Your task to perform on an android device: Go to Yahoo.com Image 0: 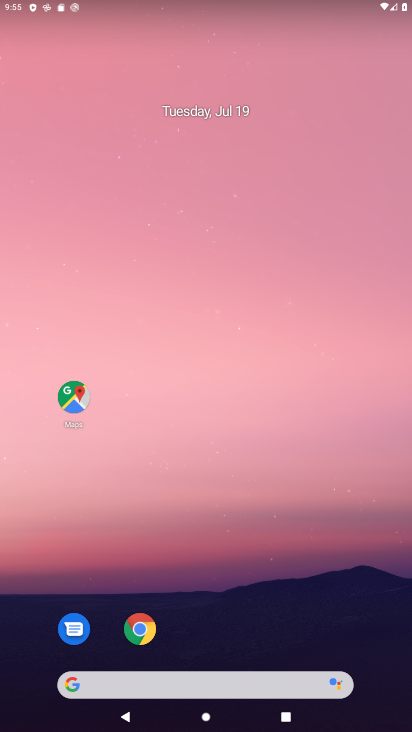
Step 0: click (71, 680)
Your task to perform on an android device: Go to Yahoo.com Image 1: 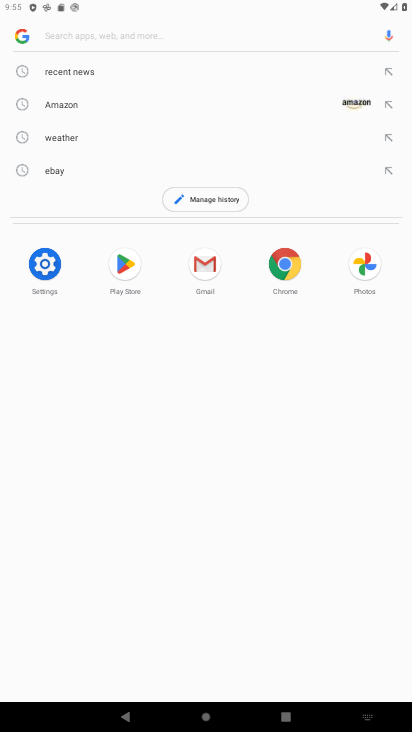
Step 1: type "Yahoo.com"
Your task to perform on an android device: Go to Yahoo.com Image 2: 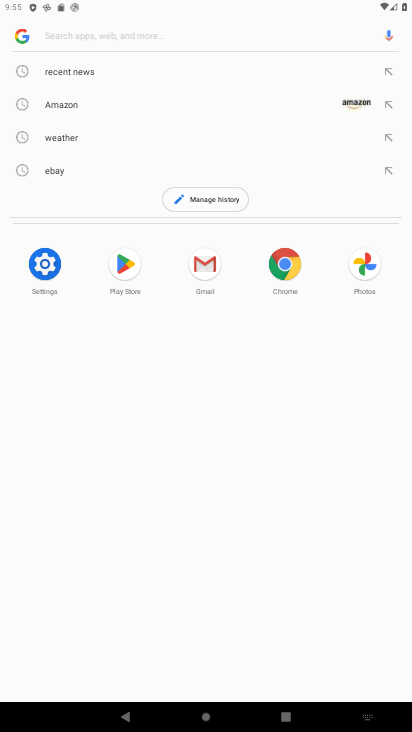
Step 2: click (80, 28)
Your task to perform on an android device: Go to Yahoo.com Image 3: 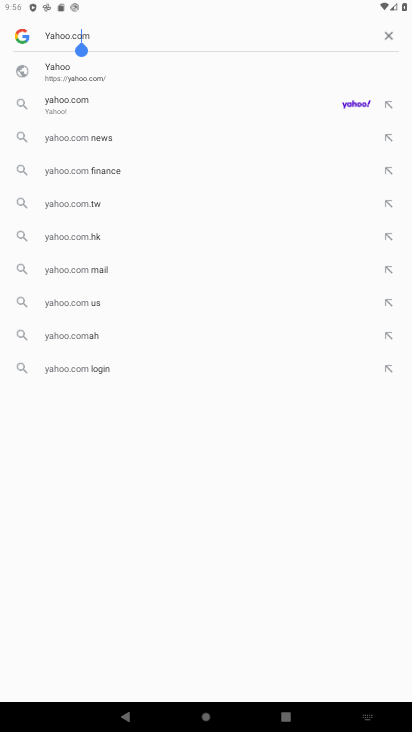
Step 3: click (349, 101)
Your task to perform on an android device: Go to Yahoo.com Image 4: 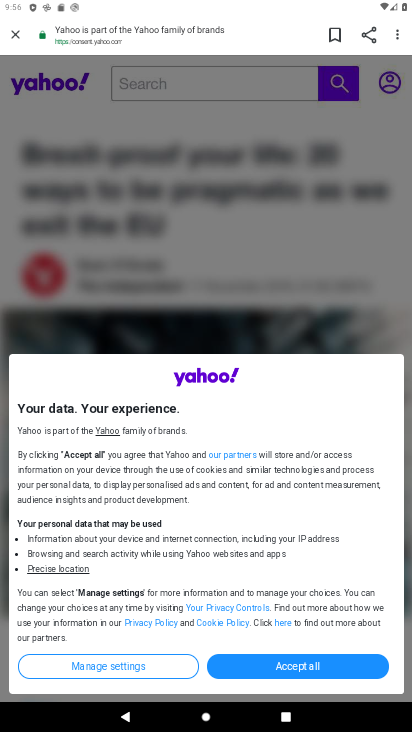
Step 4: click (283, 662)
Your task to perform on an android device: Go to Yahoo.com Image 5: 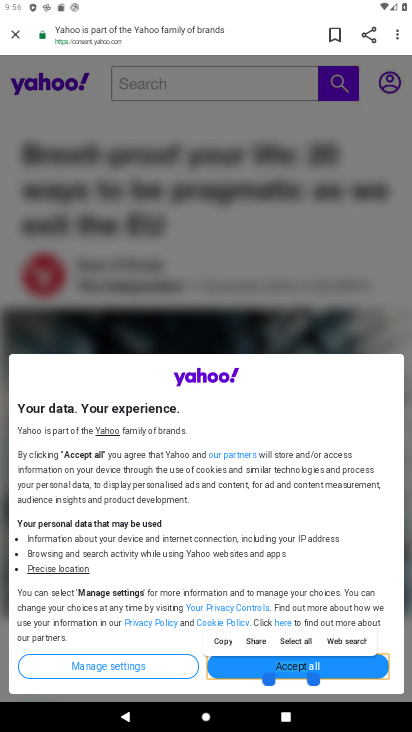
Step 5: click (319, 667)
Your task to perform on an android device: Go to Yahoo.com Image 6: 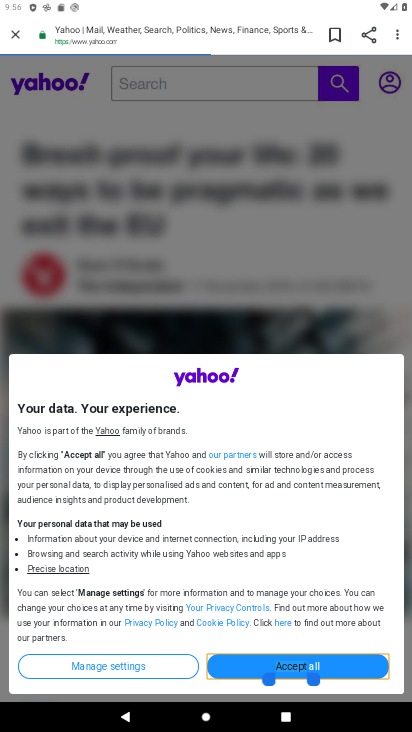
Step 6: click (289, 668)
Your task to perform on an android device: Go to Yahoo.com Image 7: 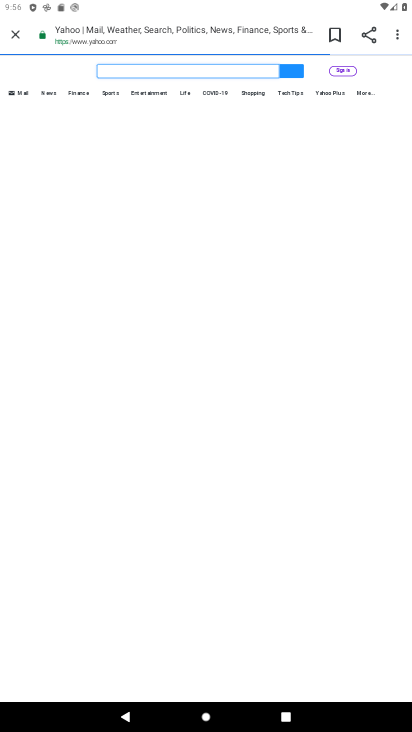
Step 7: task complete